Your task to perform on an android device: toggle wifi Image 0: 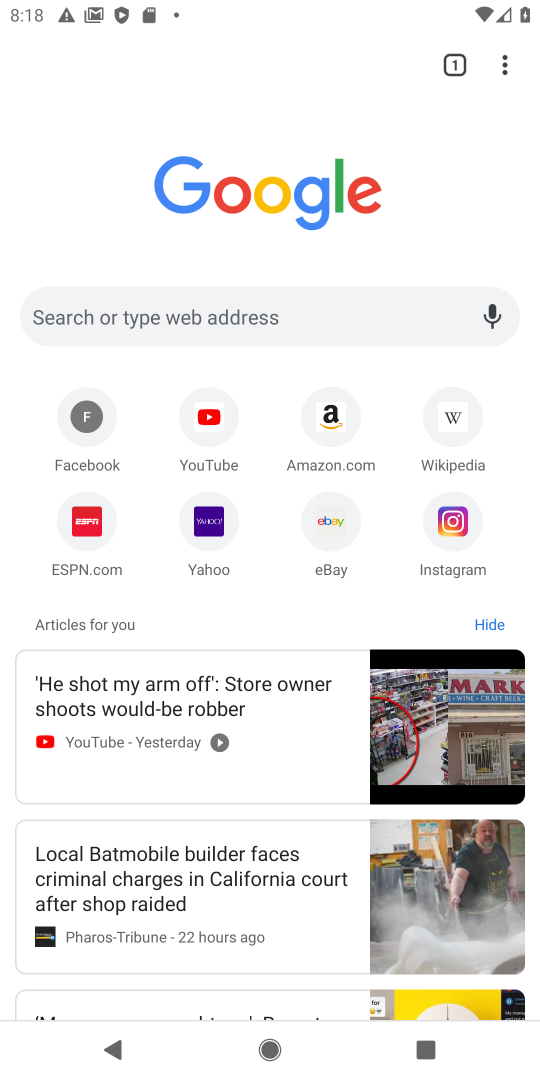
Step 0: press home button
Your task to perform on an android device: toggle wifi Image 1: 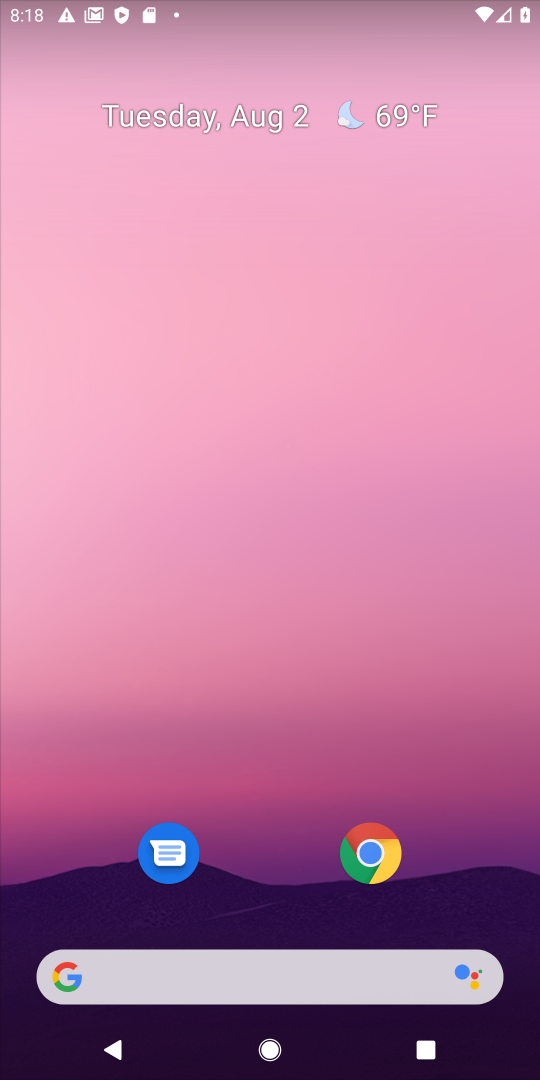
Step 1: drag from (265, 550) to (238, 196)
Your task to perform on an android device: toggle wifi Image 2: 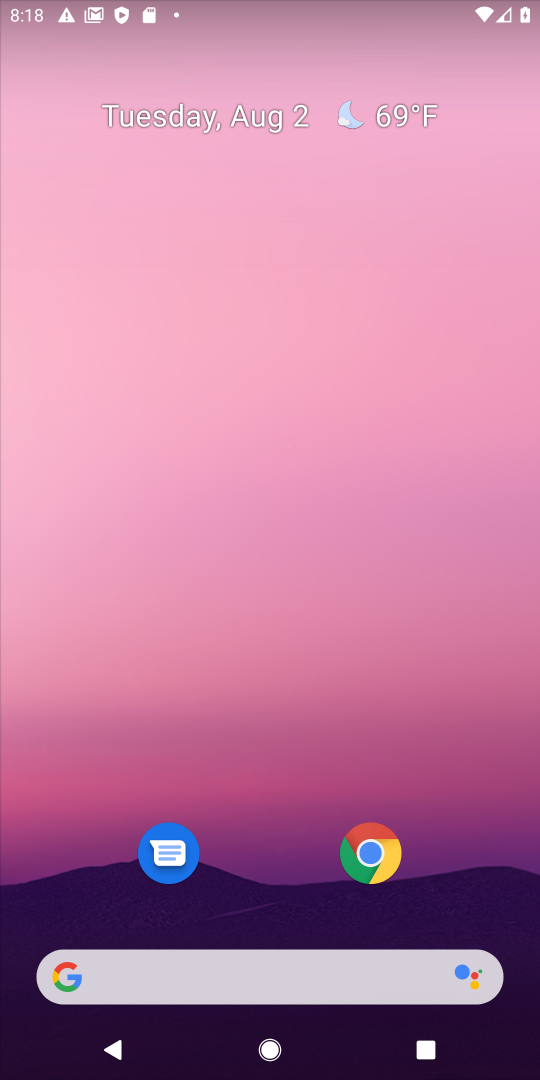
Step 2: drag from (252, 897) to (220, 58)
Your task to perform on an android device: toggle wifi Image 3: 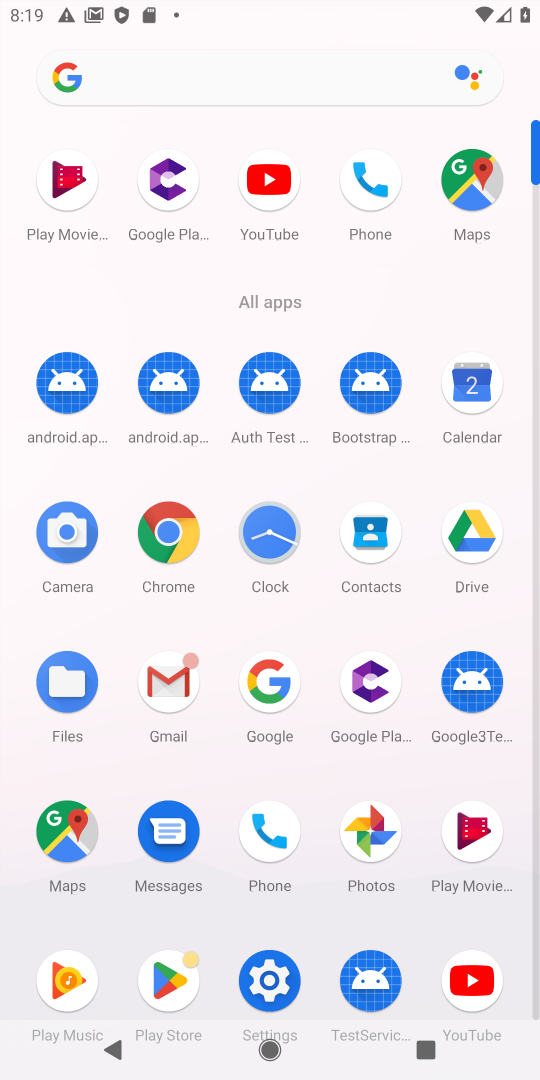
Step 3: click (272, 987)
Your task to perform on an android device: toggle wifi Image 4: 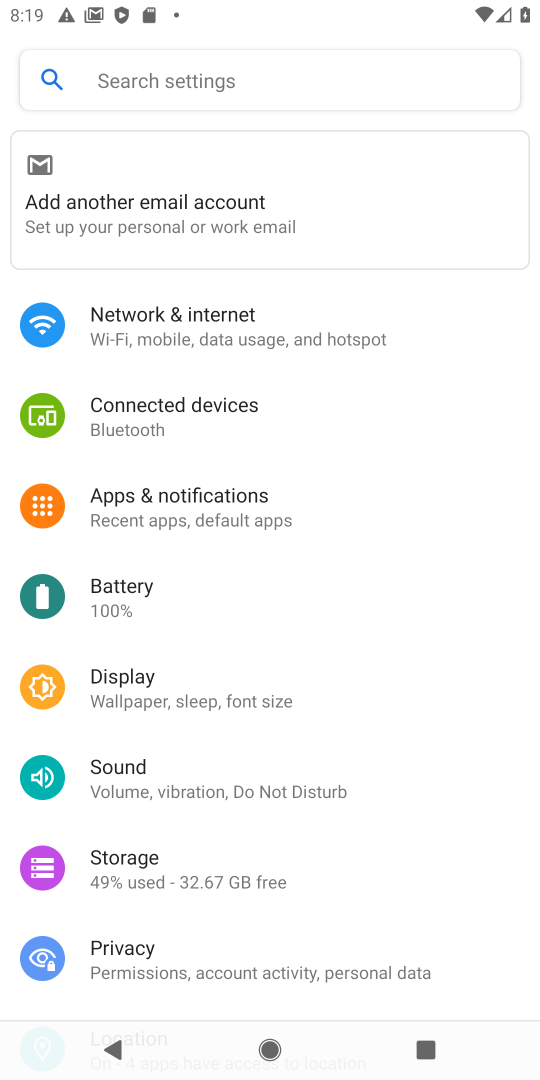
Step 4: click (172, 338)
Your task to perform on an android device: toggle wifi Image 5: 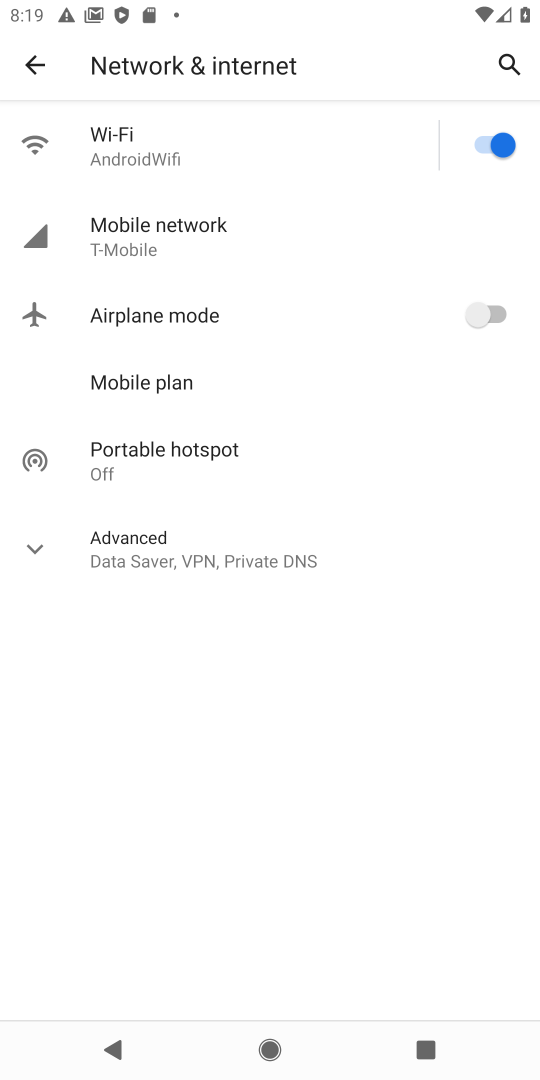
Step 5: click (493, 154)
Your task to perform on an android device: toggle wifi Image 6: 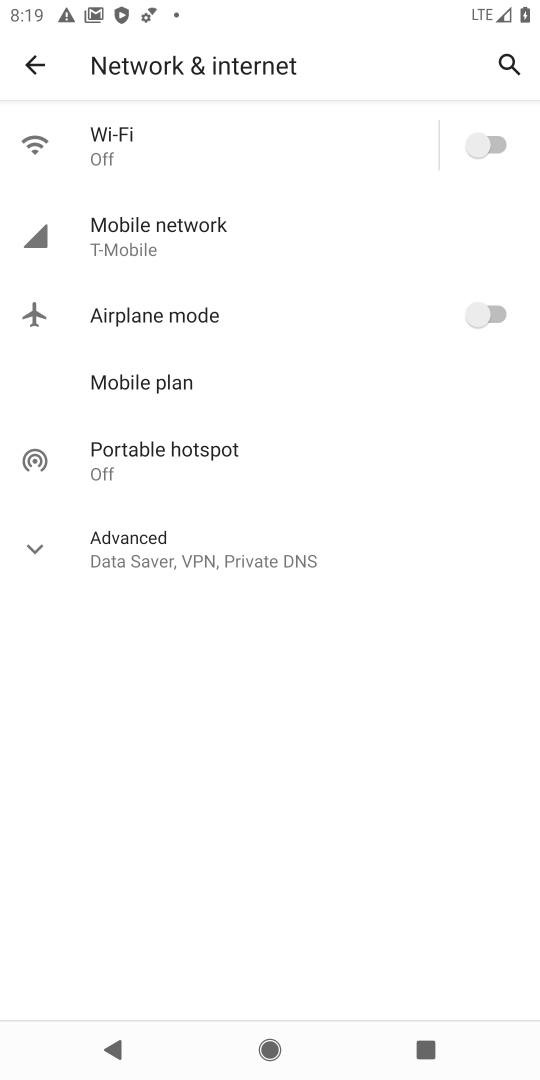
Step 6: task complete